Your task to perform on an android device: Go to network settings Image 0: 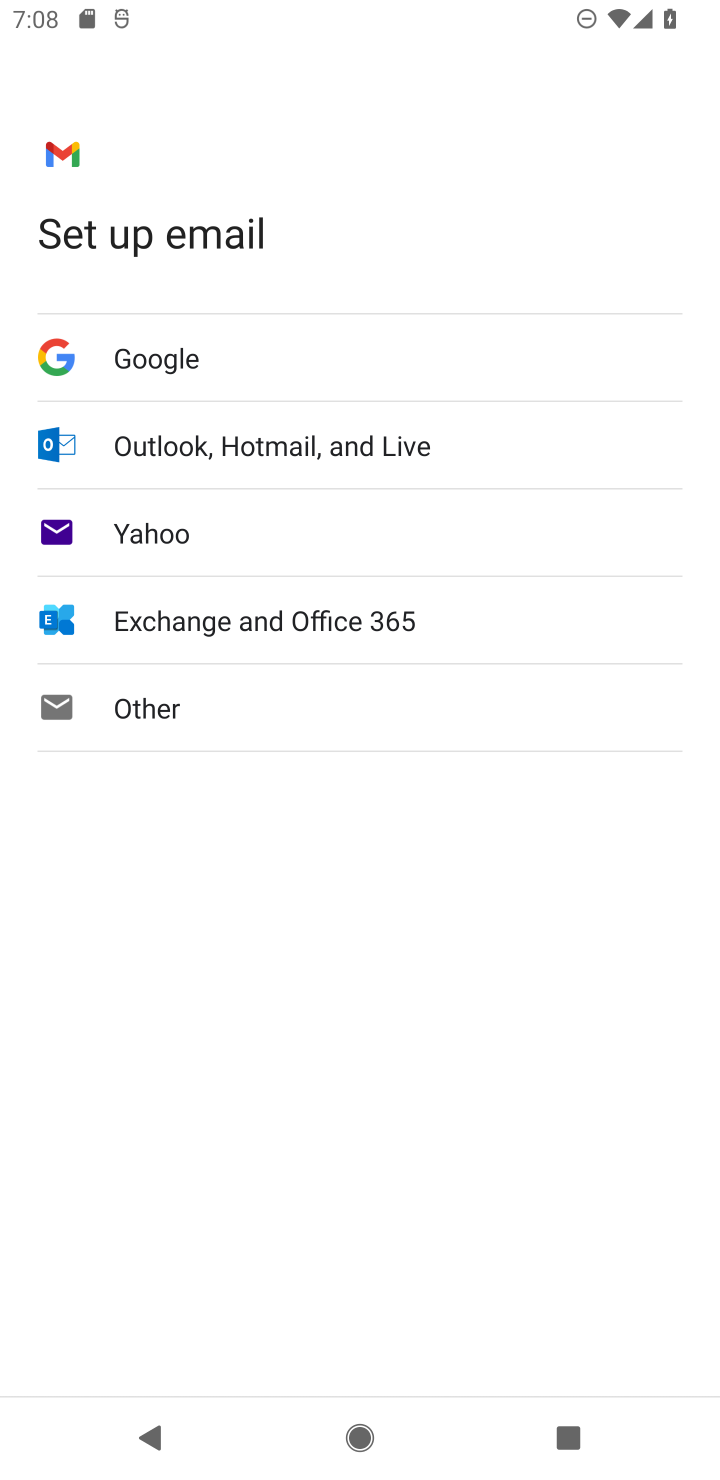
Step 0: press back button
Your task to perform on an android device: Go to network settings Image 1: 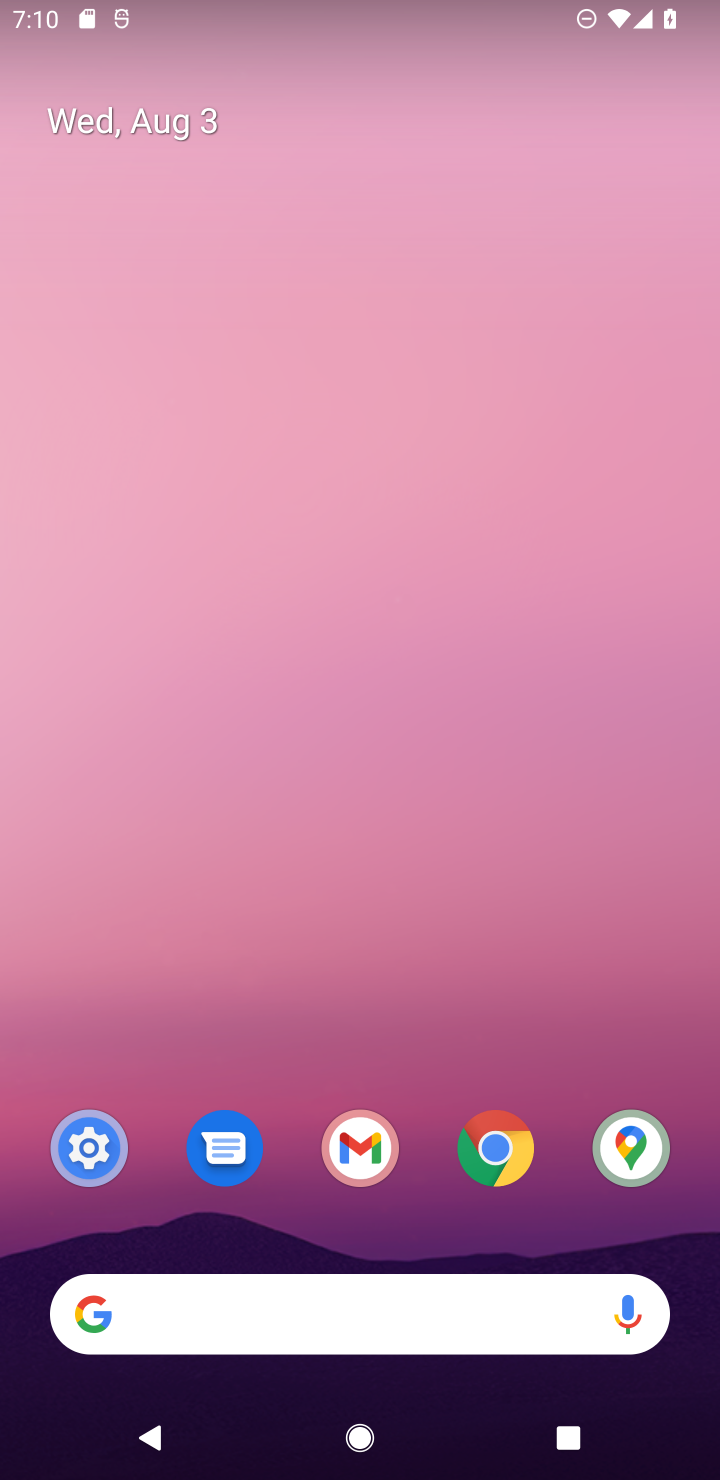
Step 1: click (98, 1177)
Your task to perform on an android device: Go to network settings Image 2: 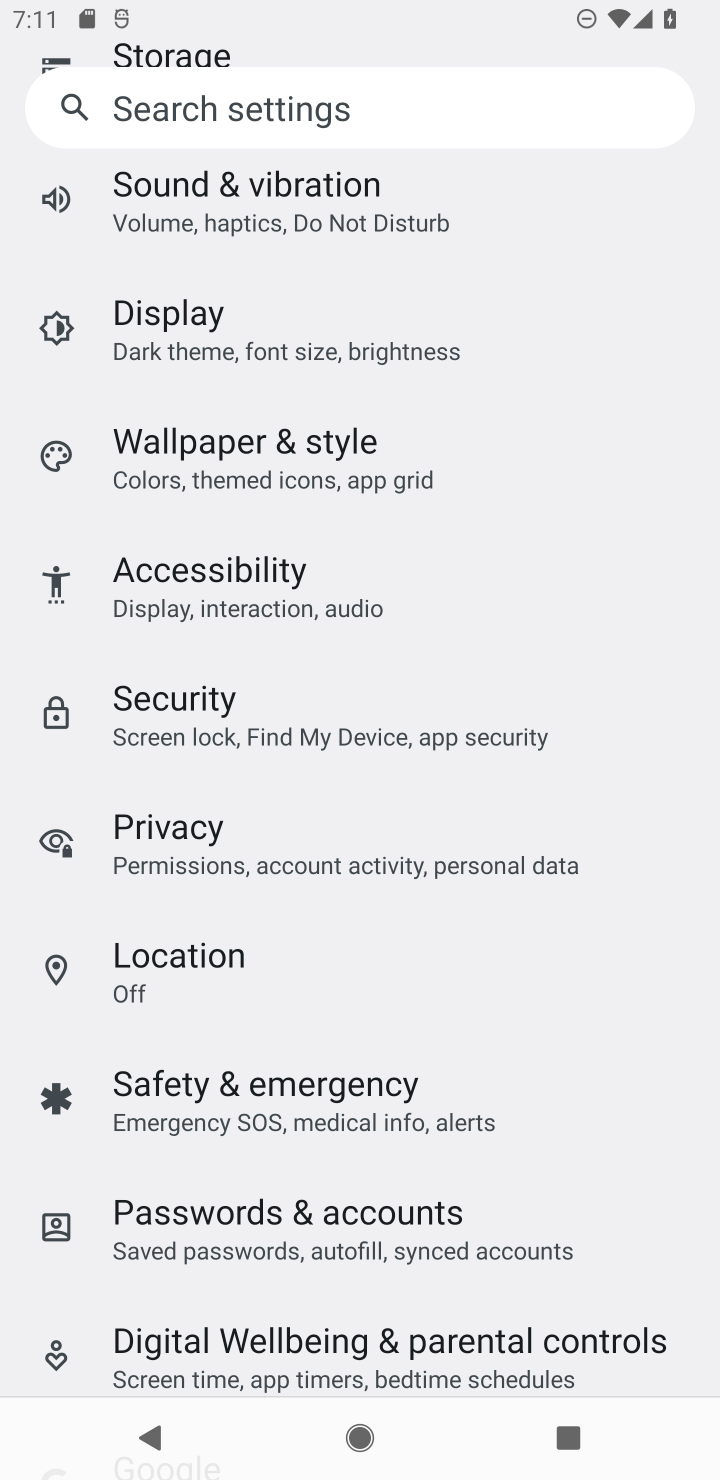
Step 2: drag from (451, 834) to (422, 1462)
Your task to perform on an android device: Go to network settings Image 3: 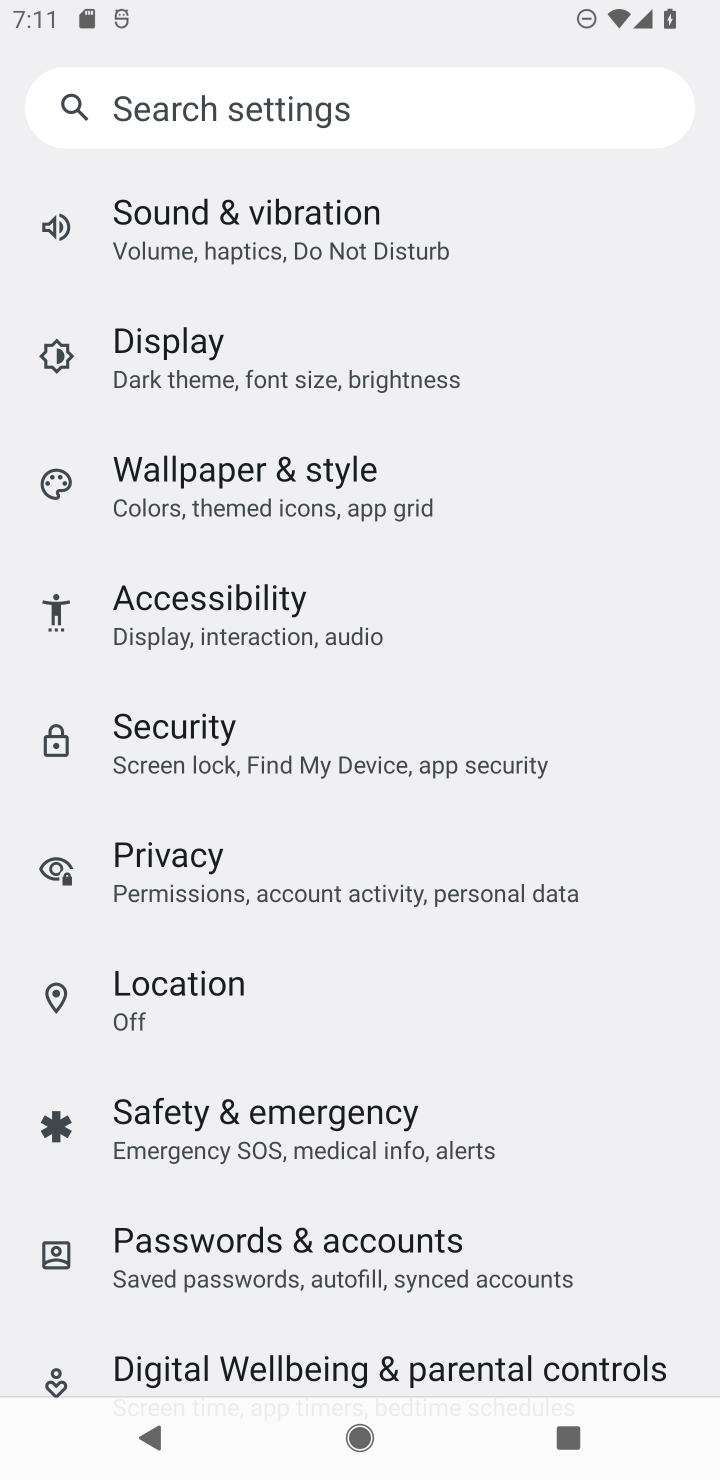
Step 3: drag from (435, 918) to (364, 1422)
Your task to perform on an android device: Go to network settings Image 4: 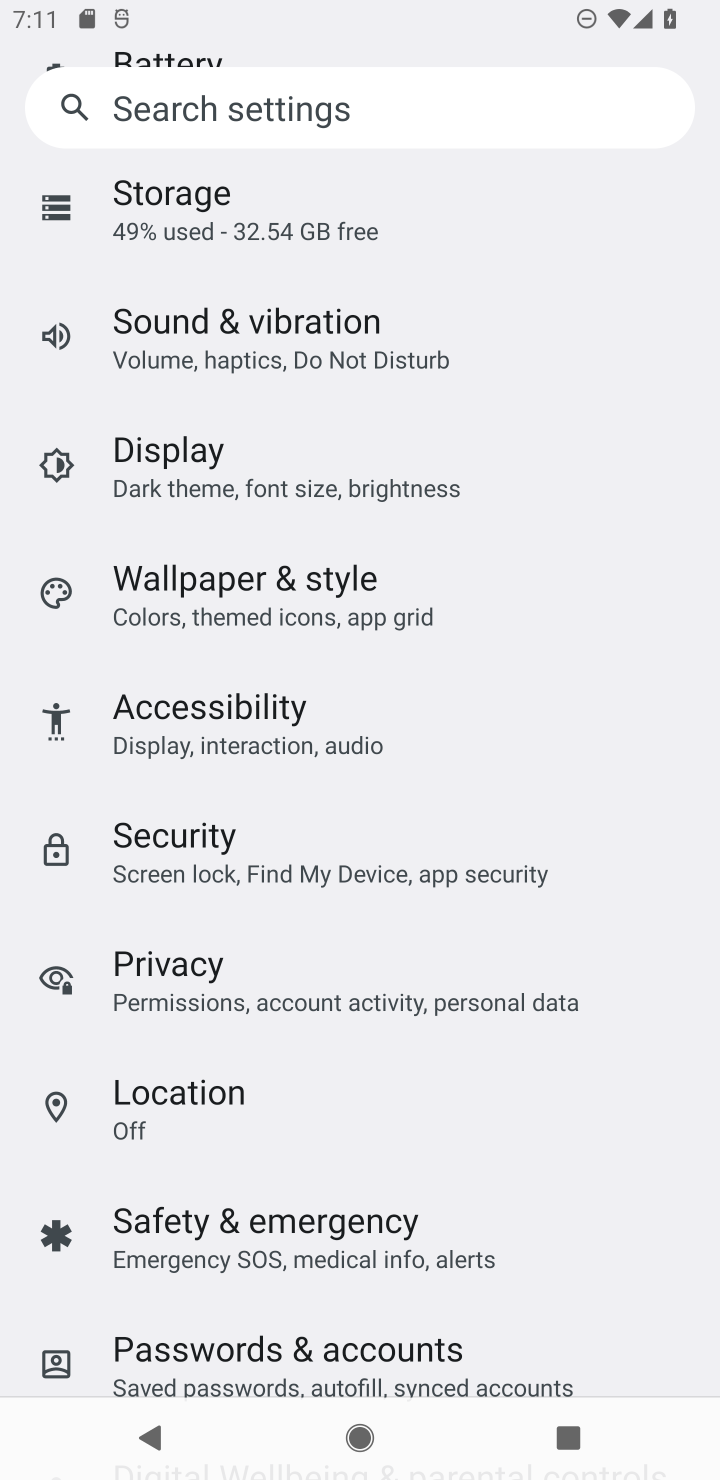
Step 4: drag from (270, 205) to (189, 1141)
Your task to perform on an android device: Go to network settings Image 5: 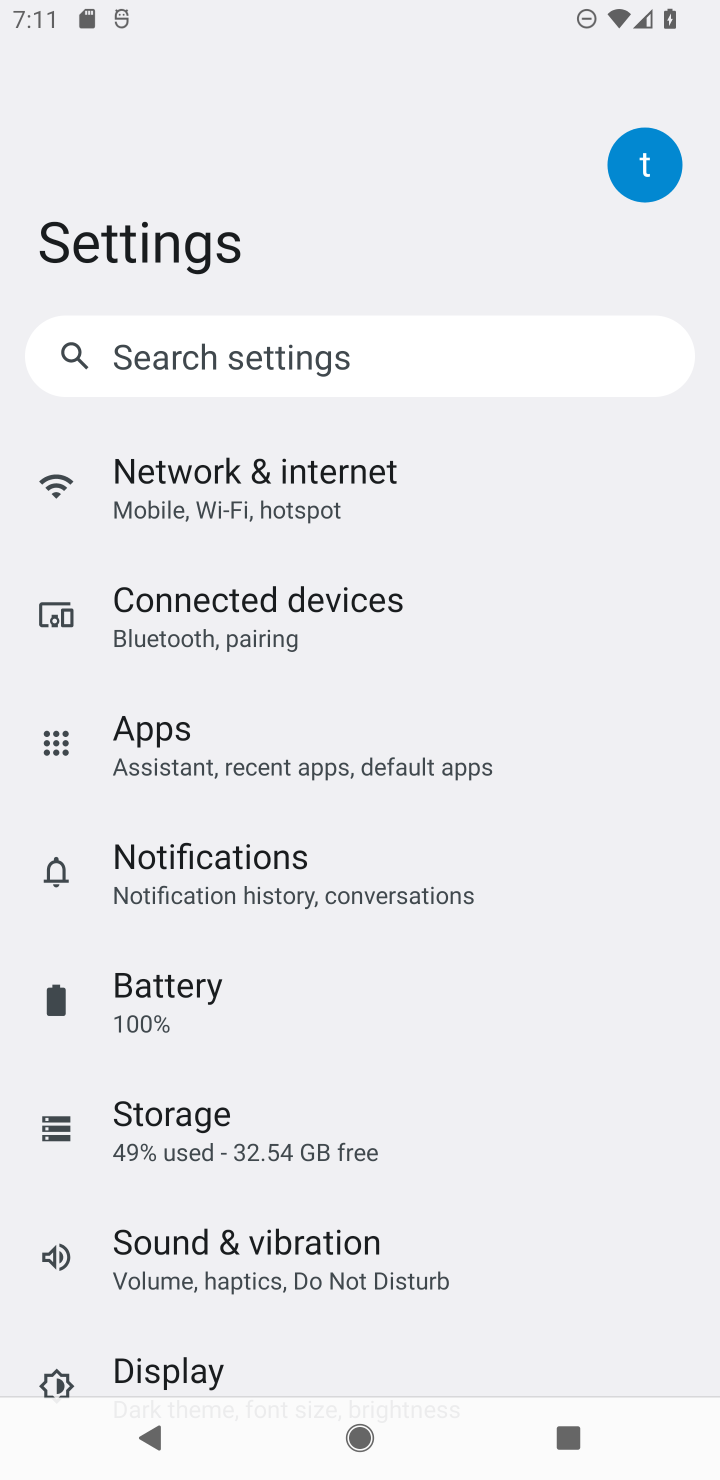
Step 5: click (189, 534)
Your task to perform on an android device: Go to network settings Image 6: 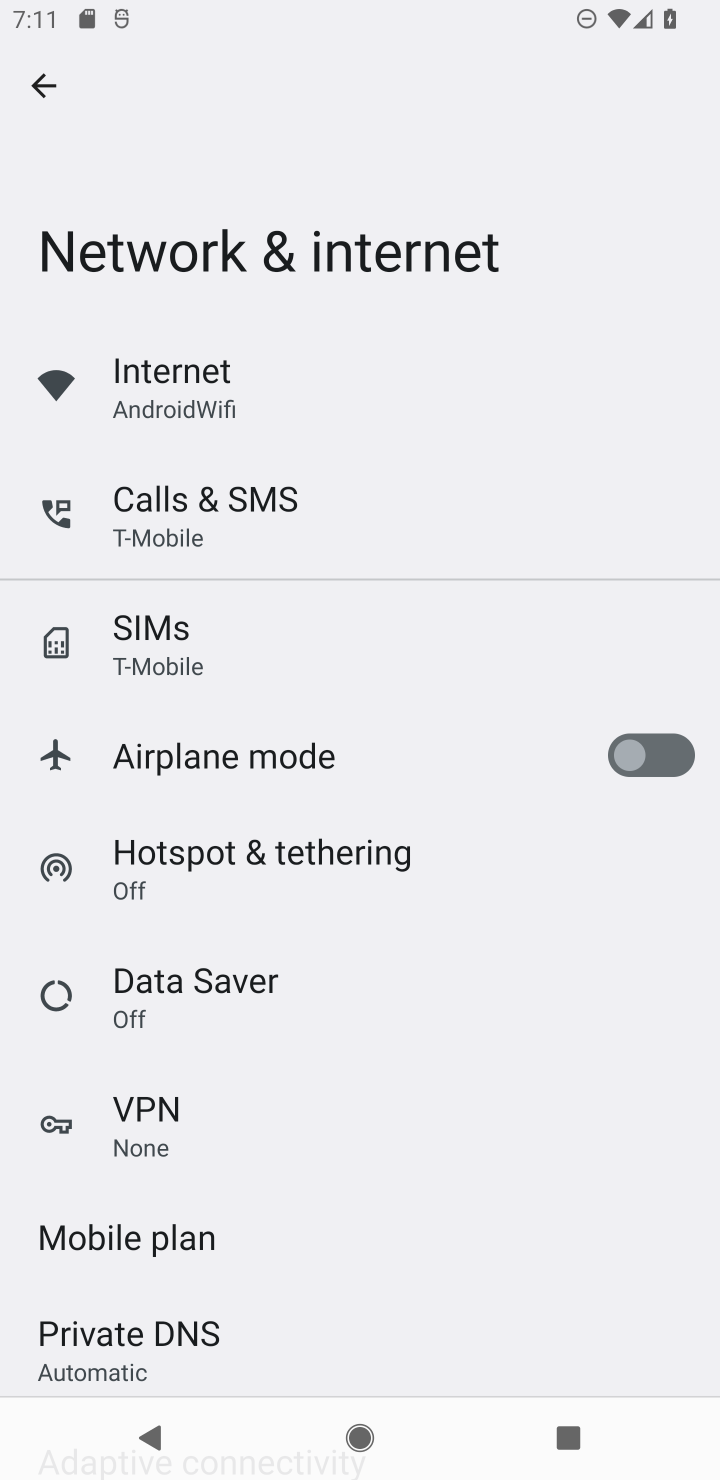
Step 6: task complete